Your task to perform on an android device: What's the weather like in Seoul? Image 0: 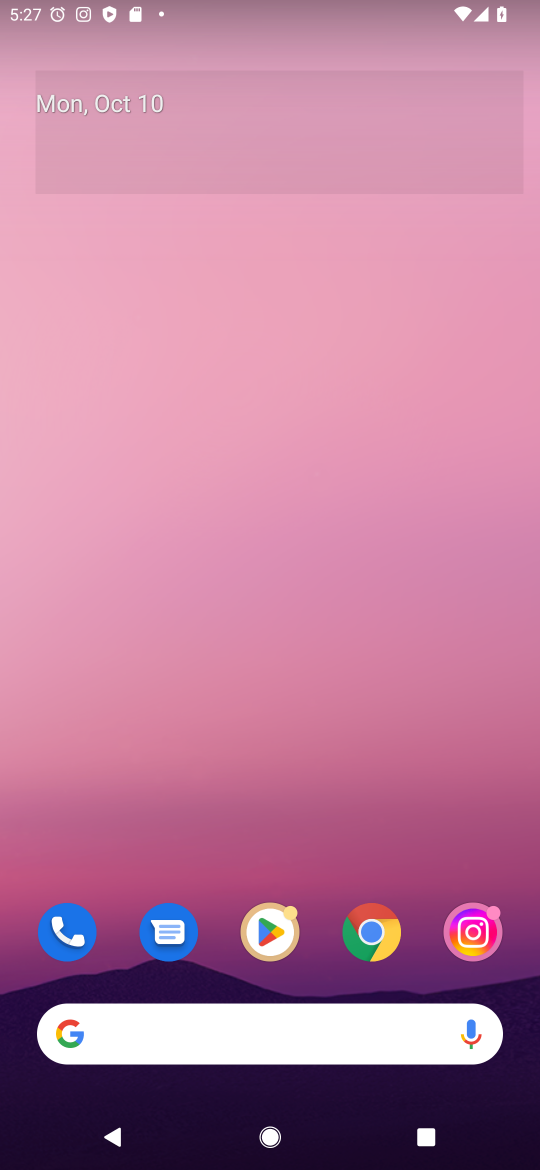
Step 0: click (246, 1034)
Your task to perform on an android device: What's the weather like in Seoul? Image 1: 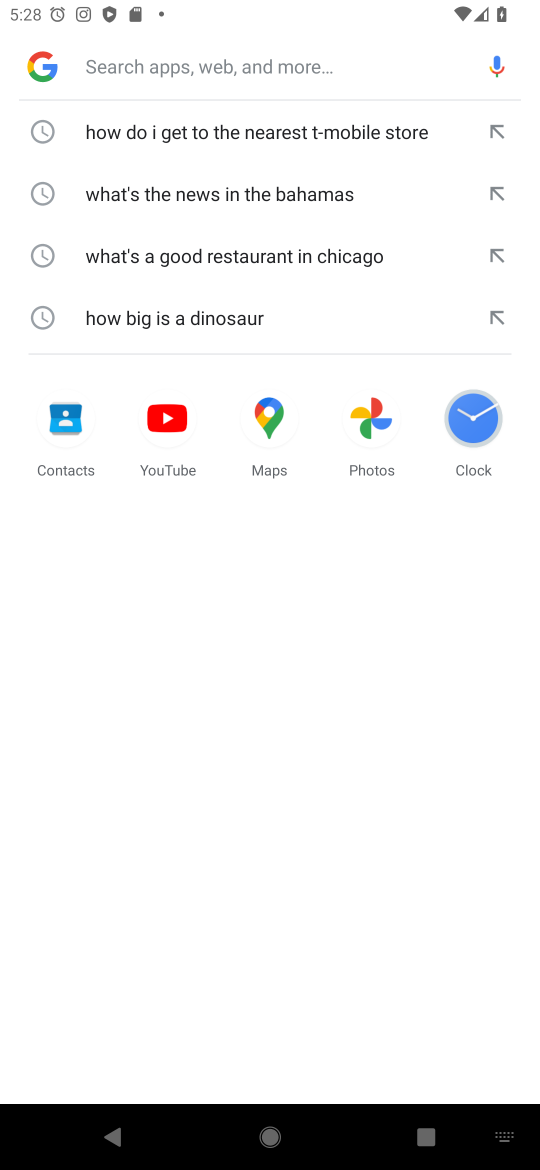
Step 1: press enter
Your task to perform on an android device: What's the weather like in Seoul? Image 2: 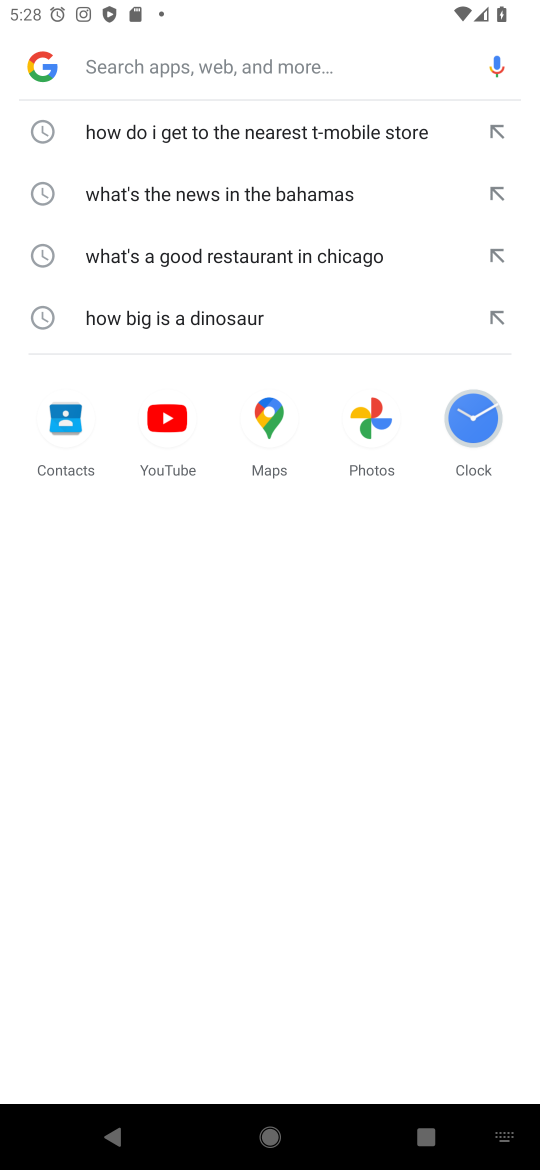
Step 2: type "What's the weather like in Seoul?"
Your task to perform on an android device: What's the weather like in Seoul? Image 3: 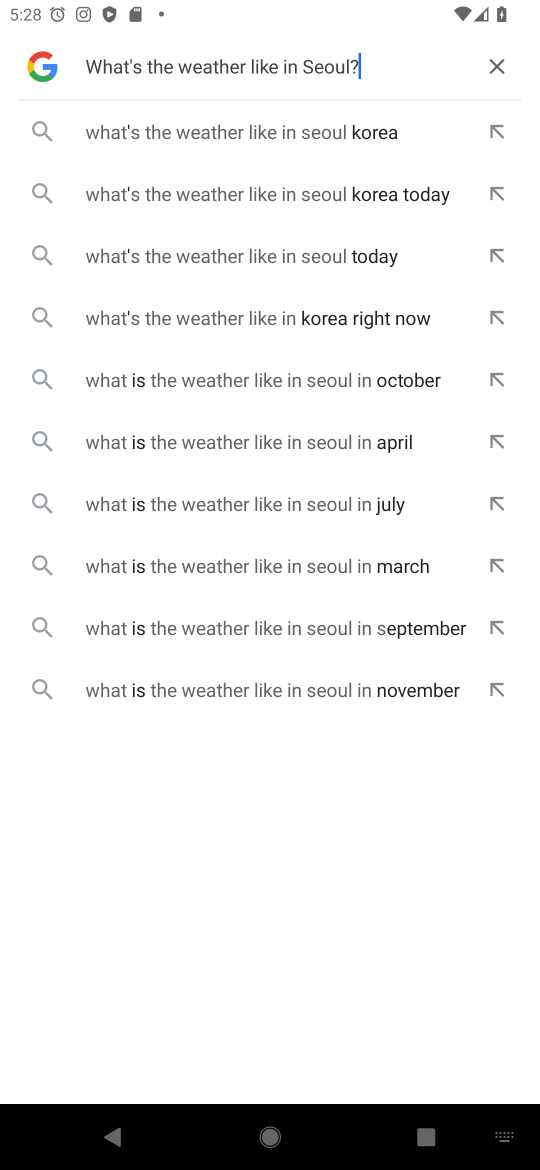
Step 3: press enter
Your task to perform on an android device: What's the weather like in Seoul? Image 4: 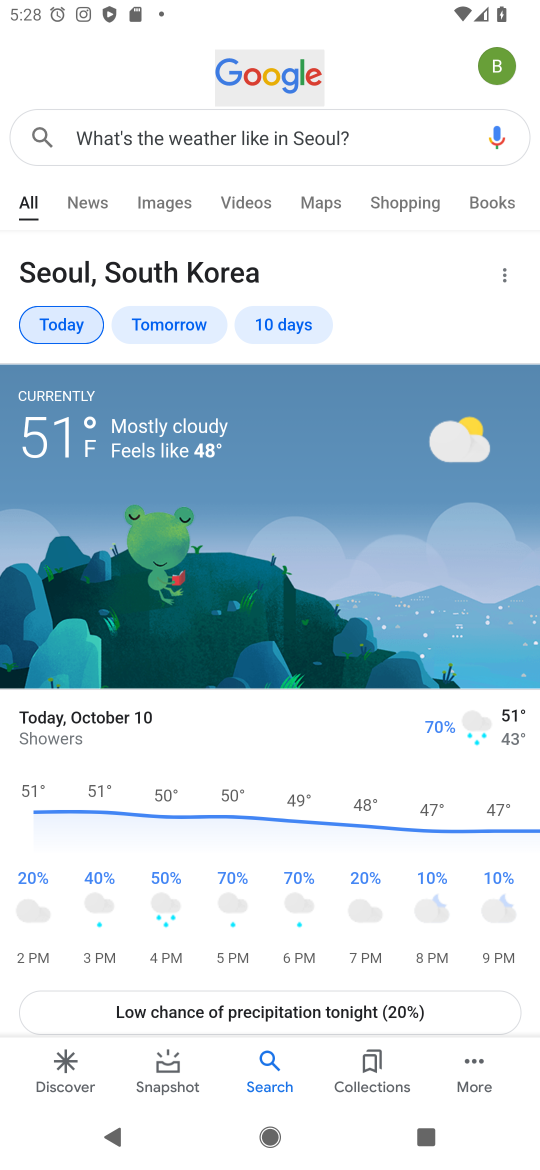
Step 4: task complete